Your task to perform on an android device: Go to sound settings Image 0: 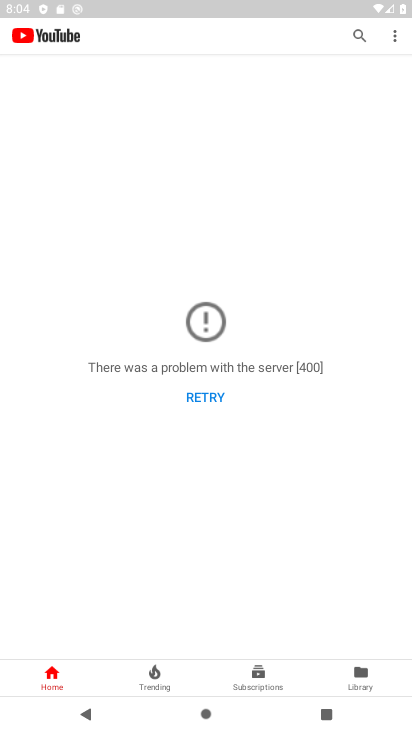
Step 0: press home button
Your task to perform on an android device: Go to sound settings Image 1: 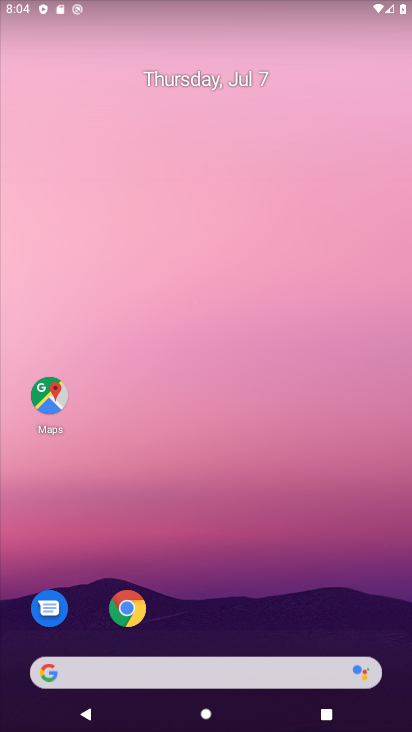
Step 1: drag from (213, 664) to (217, 325)
Your task to perform on an android device: Go to sound settings Image 2: 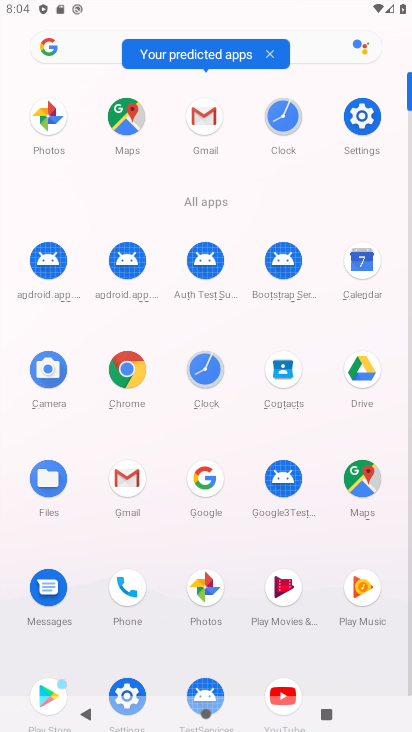
Step 2: click (371, 125)
Your task to perform on an android device: Go to sound settings Image 3: 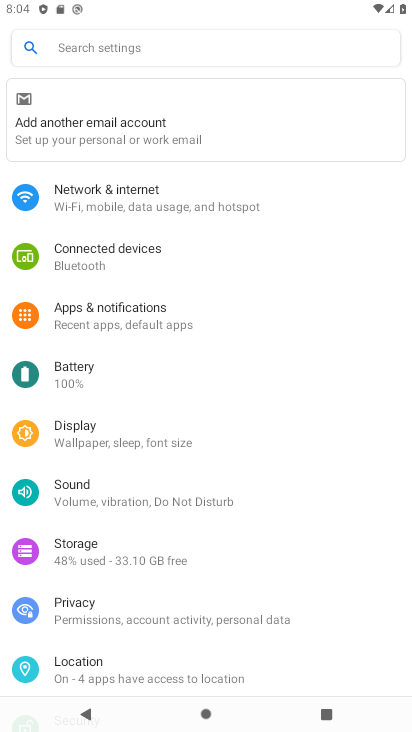
Step 3: click (98, 485)
Your task to perform on an android device: Go to sound settings Image 4: 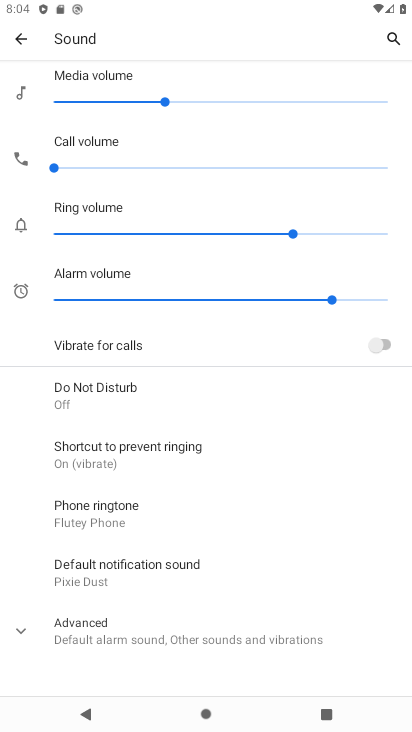
Step 4: drag from (122, 638) to (97, 371)
Your task to perform on an android device: Go to sound settings Image 5: 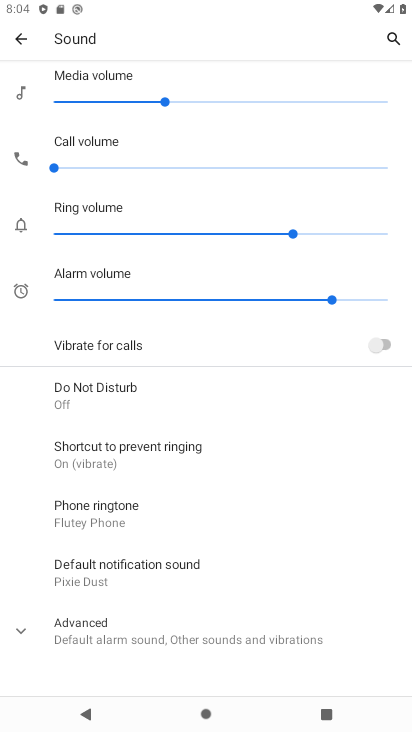
Step 5: click (63, 632)
Your task to perform on an android device: Go to sound settings Image 6: 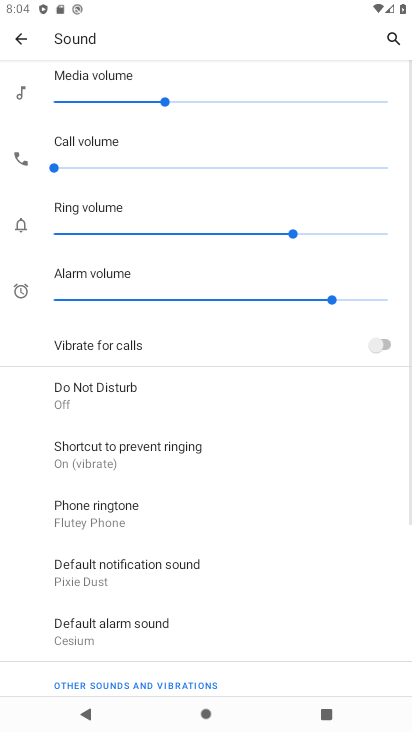
Step 6: task complete